Your task to perform on an android device: move an email to a new category in the gmail app Image 0: 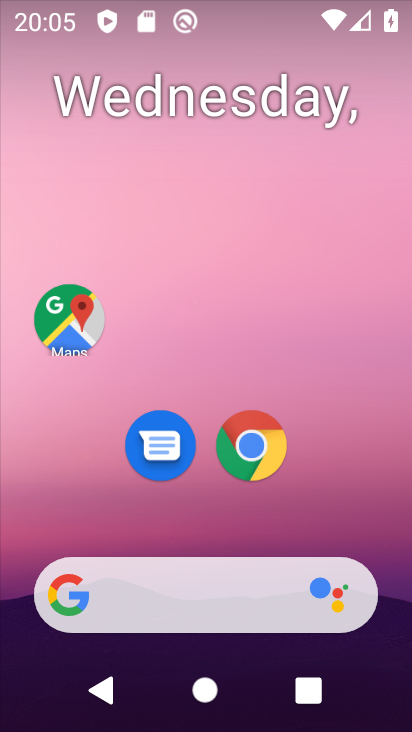
Step 0: click (350, 203)
Your task to perform on an android device: move an email to a new category in the gmail app Image 1: 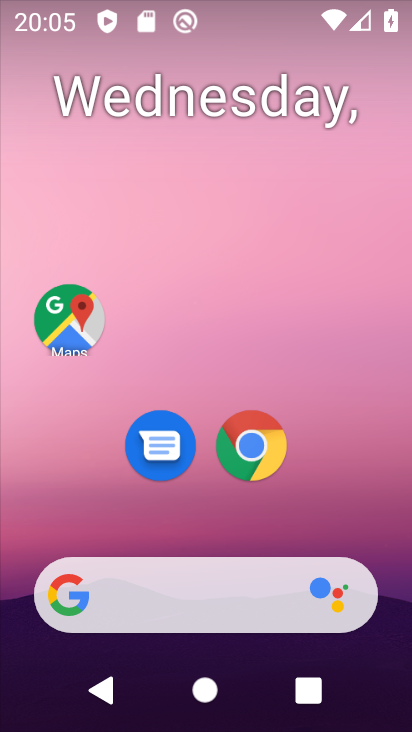
Step 1: drag from (271, 538) to (254, 219)
Your task to perform on an android device: move an email to a new category in the gmail app Image 2: 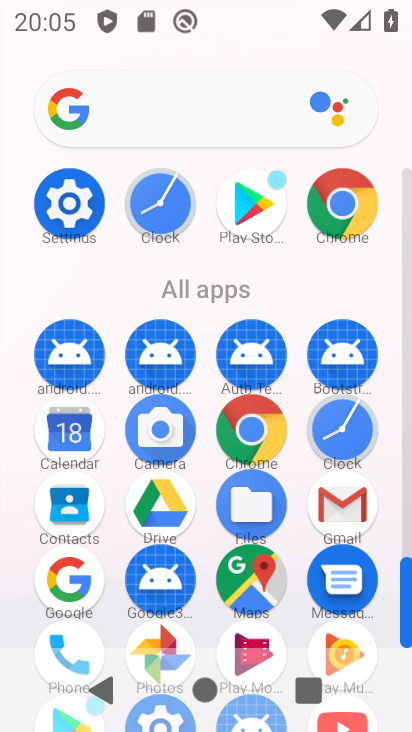
Step 2: click (336, 511)
Your task to perform on an android device: move an email to a new category in the gmail app Image 3: 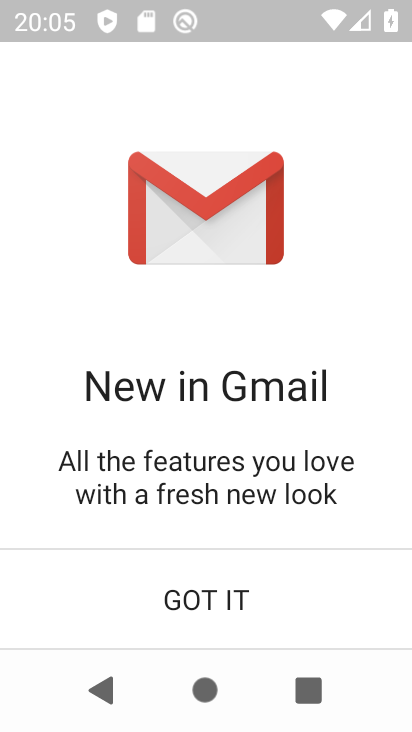
Step 3: click (205, 611)
Your task to perform on an android device: move an email to a new category in the gmail app Image 4: 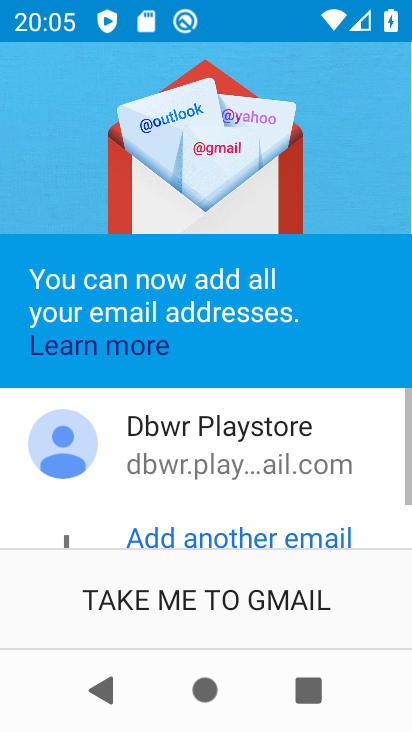
Step 4: click (187, 568)
Your task to perform on an android device: move an email to a new category in the gmail app Image 5: 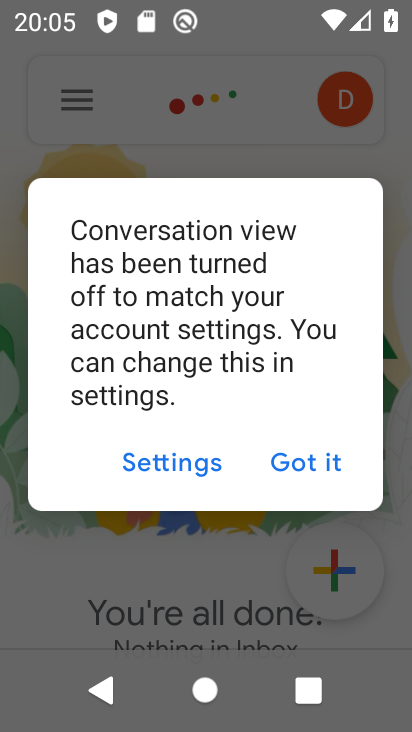
Step 5: click (285, 454)
Your task to perform on an android device: move an email to a new category in the gmail app Image 6: 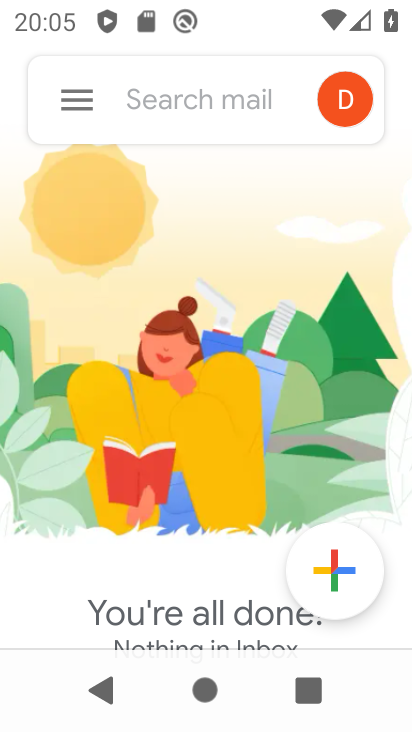
Step 6: click (80, 93)
Your task to perform on an android device: move an email to a new category in the gmail app Image 7: 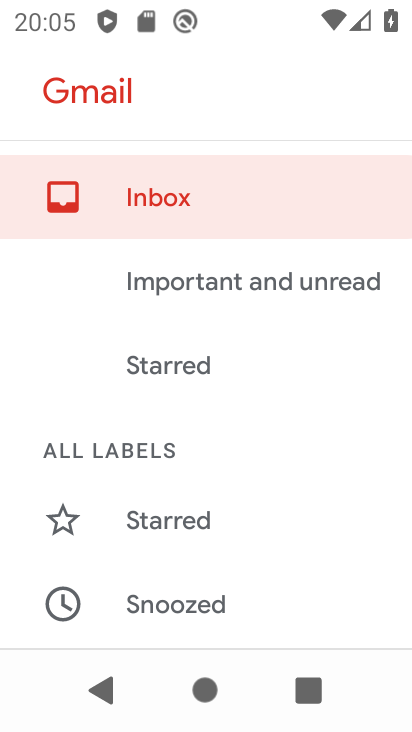
Step 7: drag from (228, 541) to (266, 175)
Your task to perform on an android device: move an email to a new category in the gmail app Image 8: 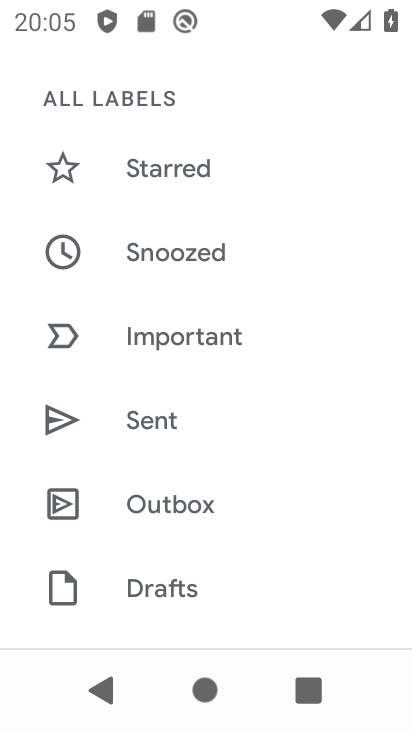
Step 8: drag from (257, 523) to (298, 183)
Your task to perform on an android device: move an email to a new category in the gmail app Image 9: 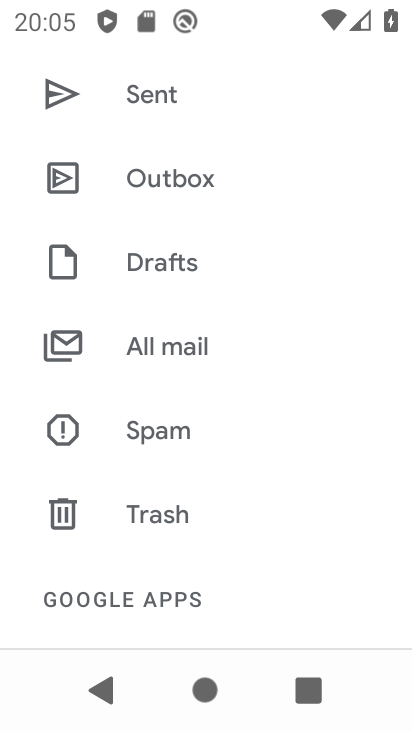
Step 9: click (211, 357)
Your task to perform on an android device: move an email to a new category in the gmail app Image 10: 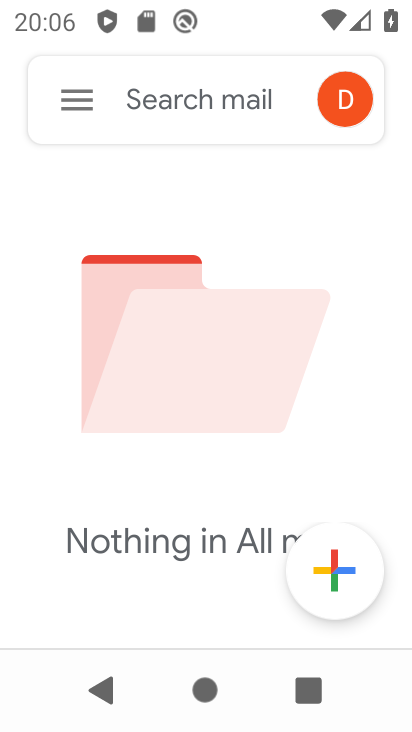
Step 10: task complete